Your task to perform on an android device: set an alarm Image 0: 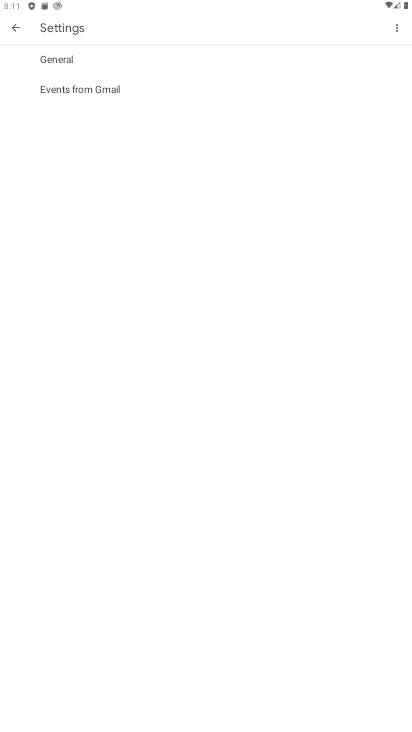
Step 0: press home button
Your task to perform on an android device: set an alarm Image 1: 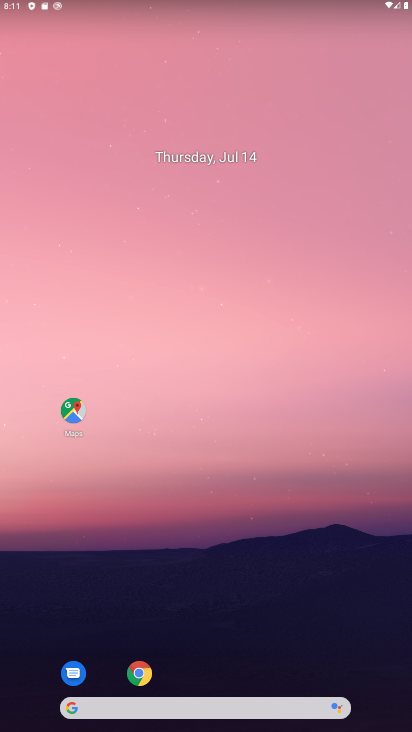
Step 1: drag from (201, 707) to (234, 90)
Your task to perform on an android device: set an alarm Image 2: 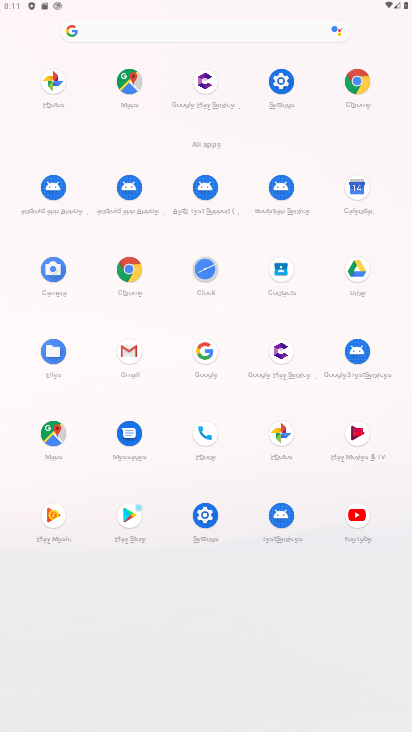
Step 2: click (204, 270)
Your task to perform on an android device: set an alarm Image 3: 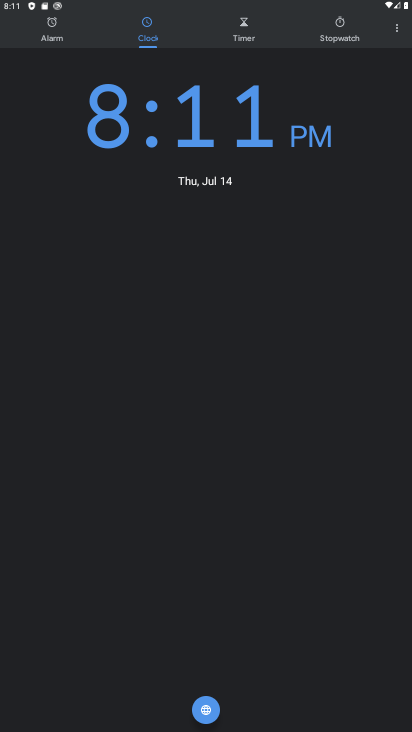
Step 3: click (54, 28)
Your task to perform on an android device: set an alarm Image 4: 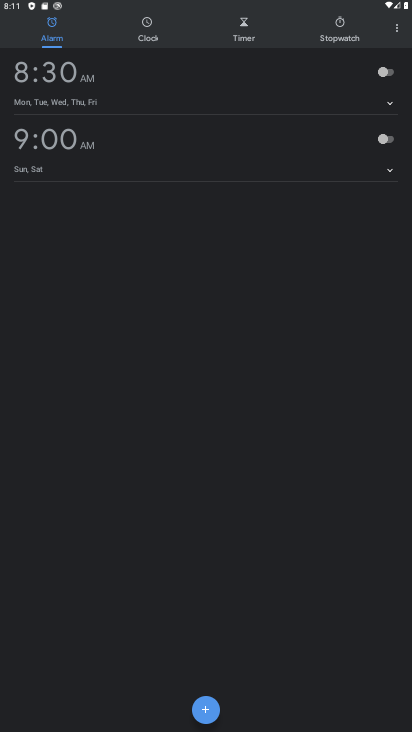
Step 4: click (206, 717)
Your task to perform on an android device: set an alarm Image 5: 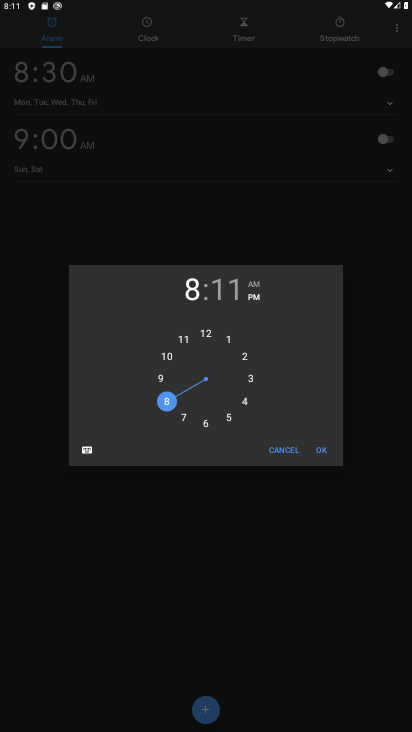
Step 5: click (210, 422)
Your task to perform on an android device: set an alarm Image 6: 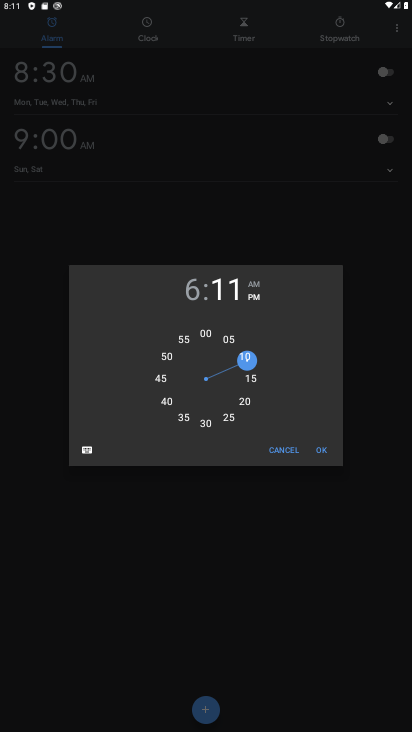
Step 6: click (206, 346)
Your task to perform on an android device: set an alarm Image 7: 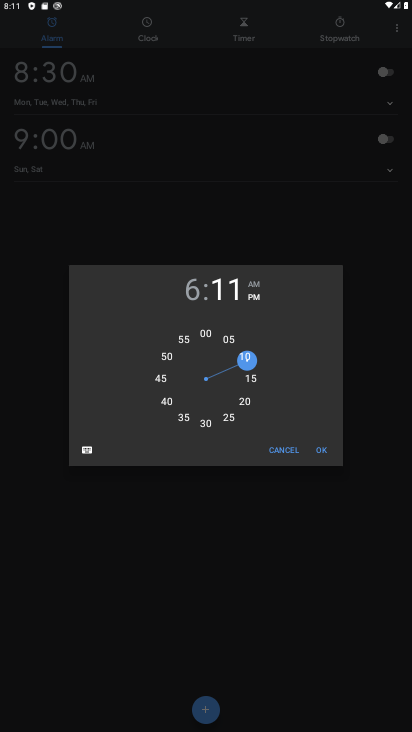
Step 7: click (207, 337)
Your task to perform on an android device: set an alarm Image 8: 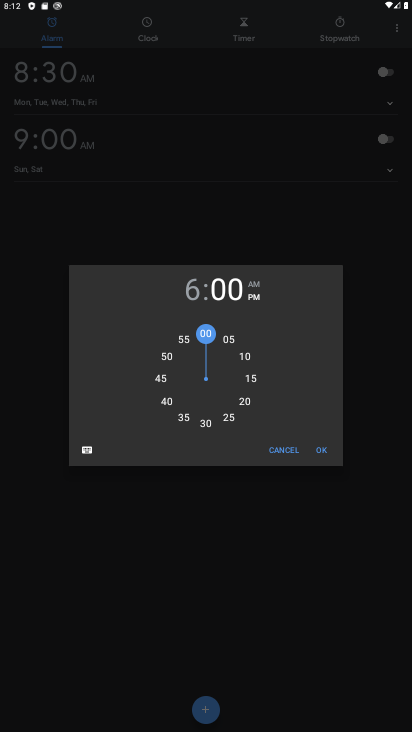
Step 8: click (254, 286)
Your task to perform on an android device: set an alarm Image 9: 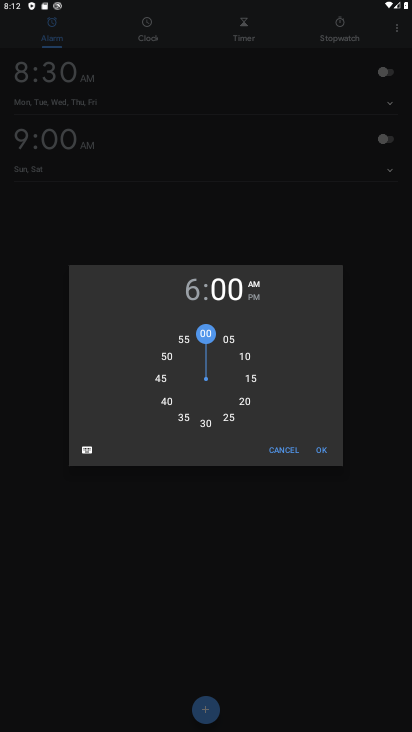
Step 9: click (330, 458)
Your task to perform on an android device: set an alarm Image 10: 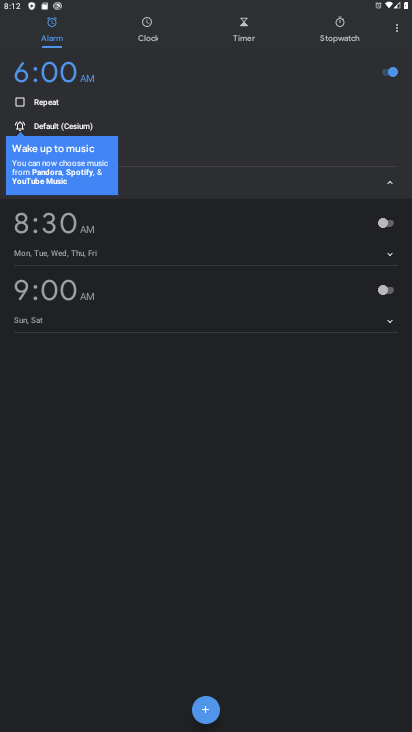
Step 10: task complete